Your task to perform on an android device: Open Chrome and go to settings Image 0: 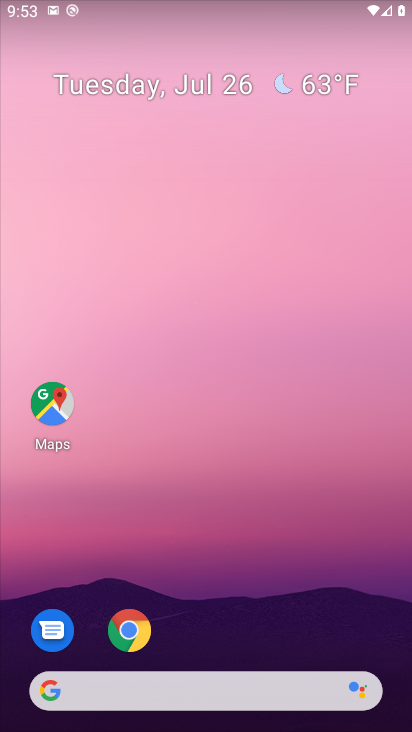
Step 0: press home button
Your task to perform on an android device: Open Chrome and go to settings Image 1: 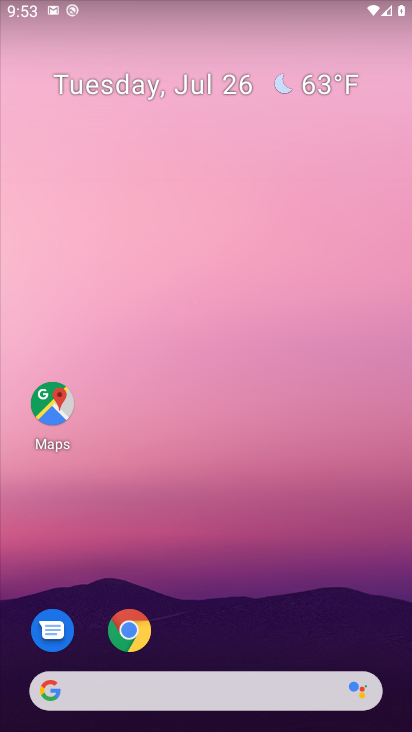
Step 1: click (127, 623)
Your task to perform on an android device: Open Chrome and go to settings Image 2: 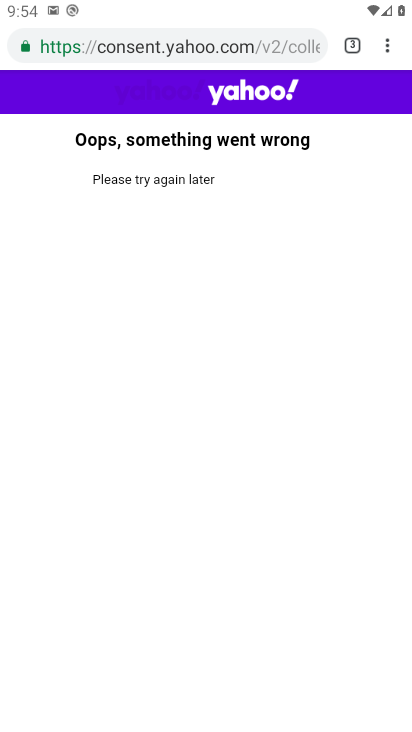
Step 2: click (390, 42)
Your task to perform on an android device: Open Chrome and go to settings Image 3: 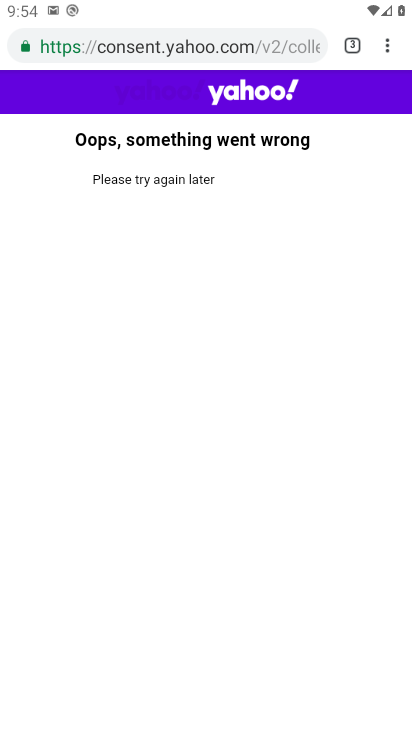
Step 3: click (383, 40)
Your task to perform on an android device: Open Chrome and go to settings Image 4: 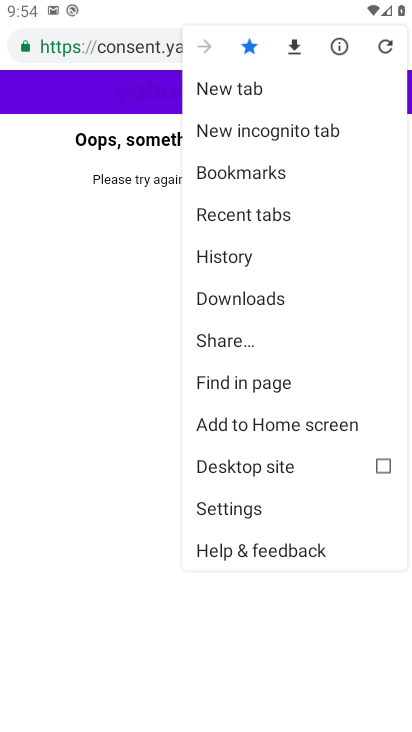
Step 4: click (241, 507)
Your task to perform on an android device: Open Chrome and go to settings Image 5: 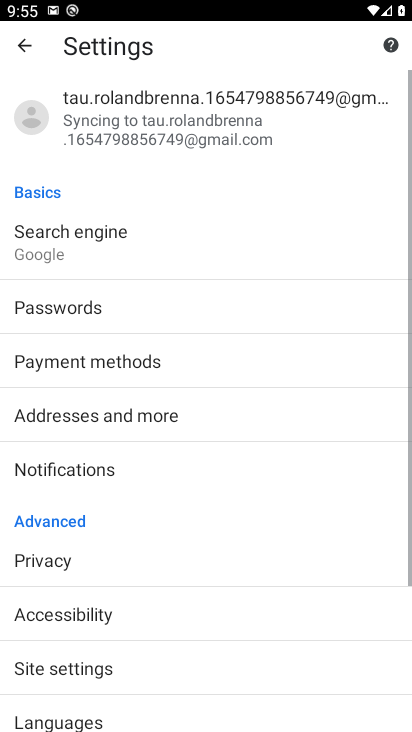
Step 5: task complete